Your task to perform on an android device: Open Yahoo.com Image 0: 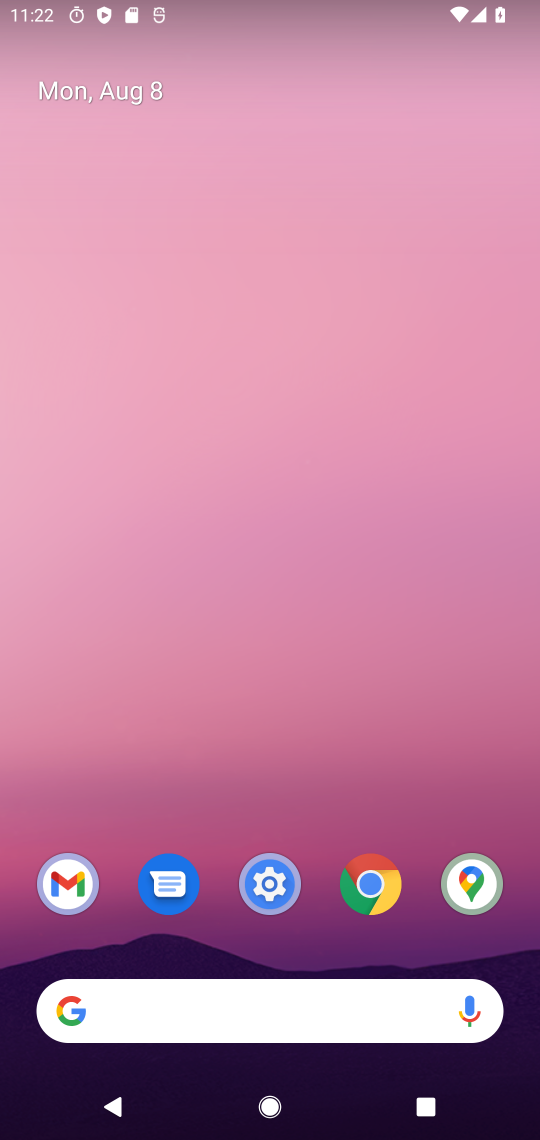
Step 0: click (376, 883)
Your task to perform on an android device: Open Yahoo.com Image 1: 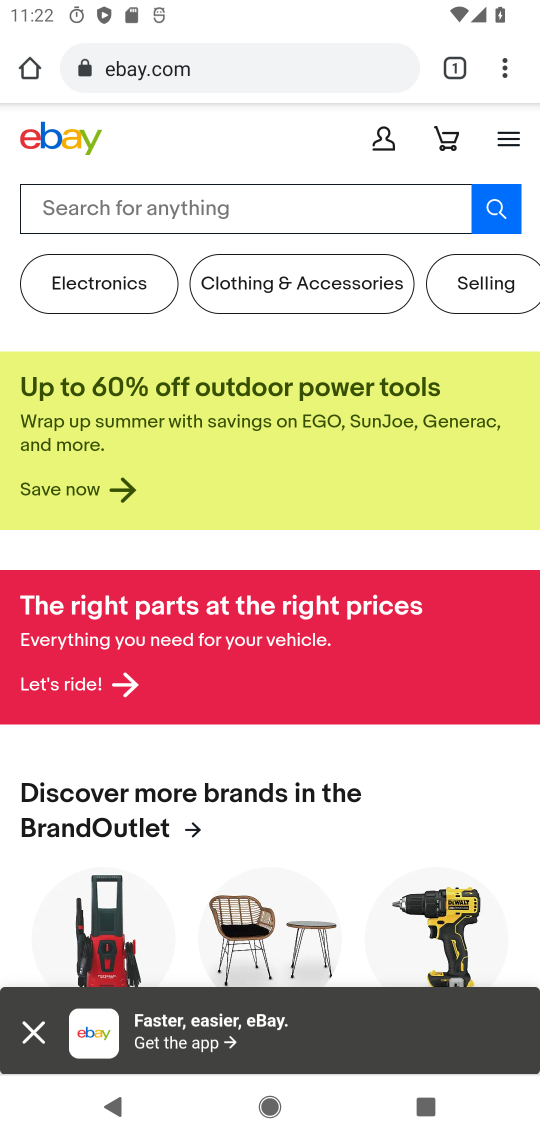
Step 1: click (177, 63)
Your task to perform on an android device: Open Yahoo.com Image 2: 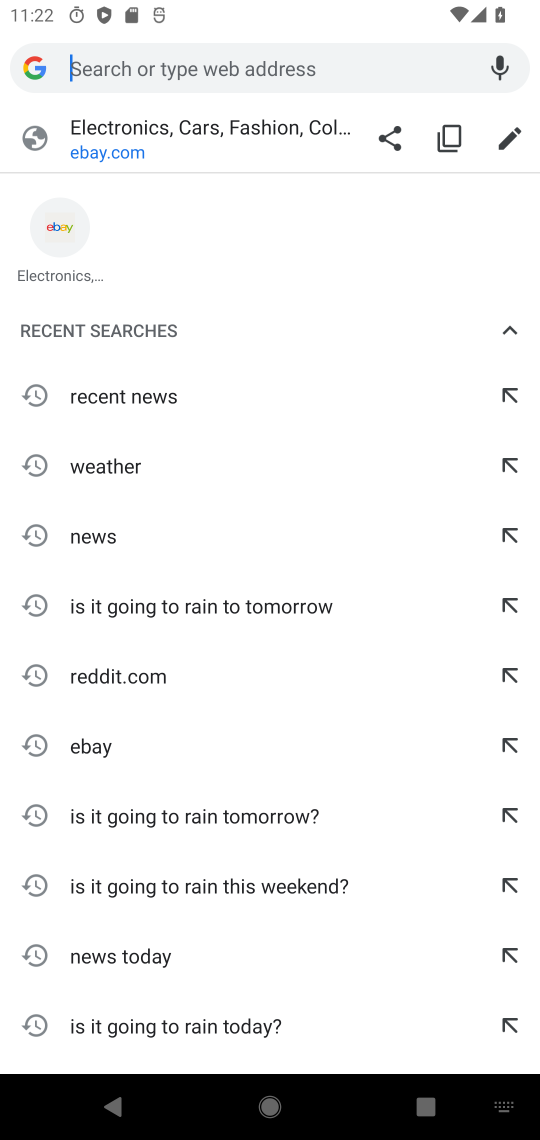
Step 2: type "www.yahoo.com"
Your task to perform on an android device: Open Yahoo.com Image 3: 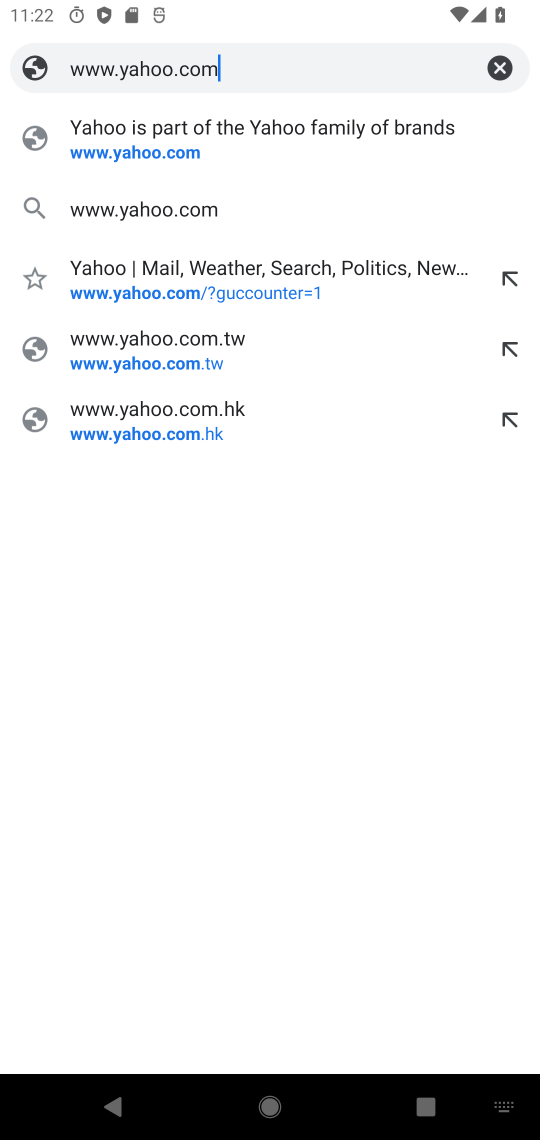
Step 3: click (121, 152)
Your task to perform on an android device: Open Yahoo.com Image 4: 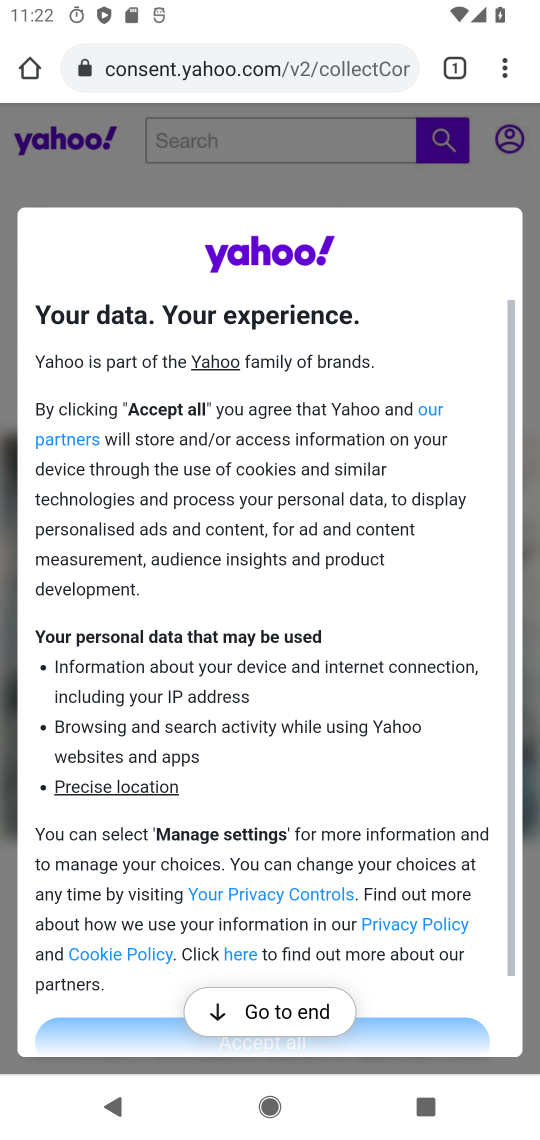
Step 4: task complete